Your task to perform on an android device: Open Chrome and go to settings Image 0: 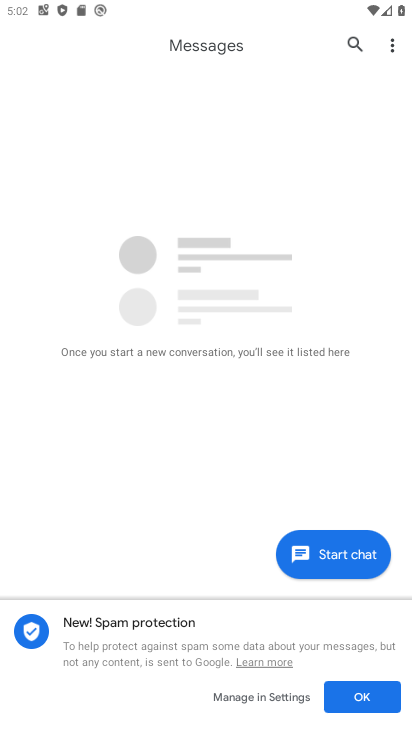
Step 0: press home button
Your task to perform on an android device: Open Chrome and go to settings Image 1: 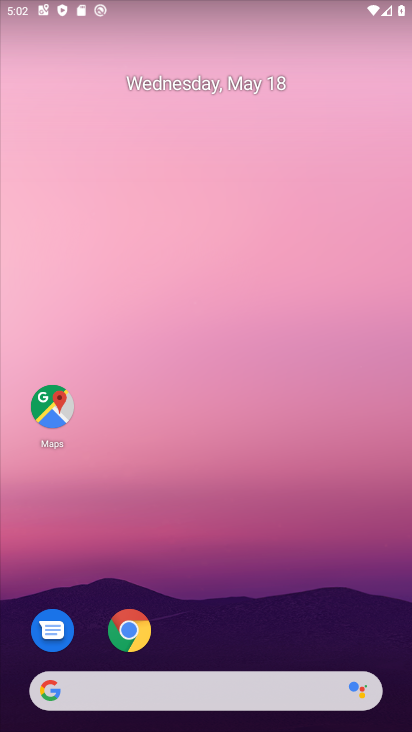
Step 1: drag from (172, 666) to (173, 262)
Your task to perform on an android device: Open Chrome and go to settings Image 2: 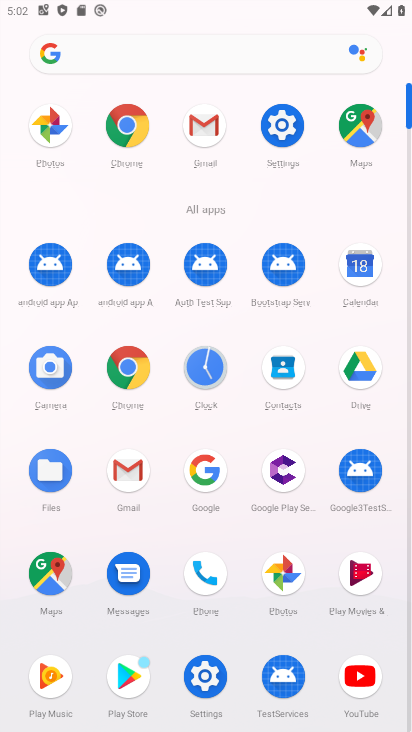
Step 2: click (141, 124)
Your task to perform on an android device: Open Chrome and go to settings Image 3: 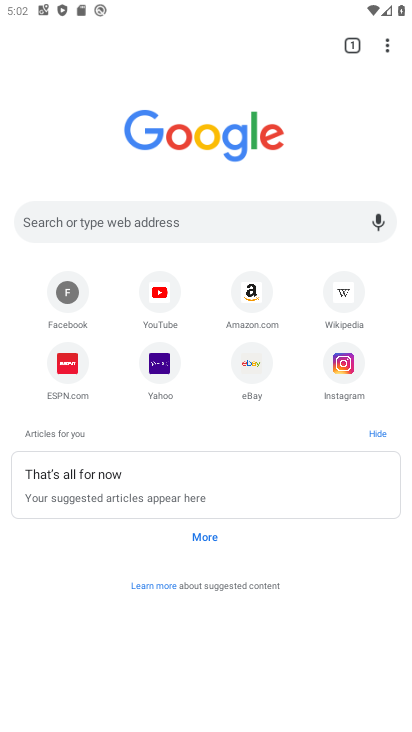
Step 3: click (394, 53)
Your task to perform on an android device: Open Chrome and go to settings Image 4: 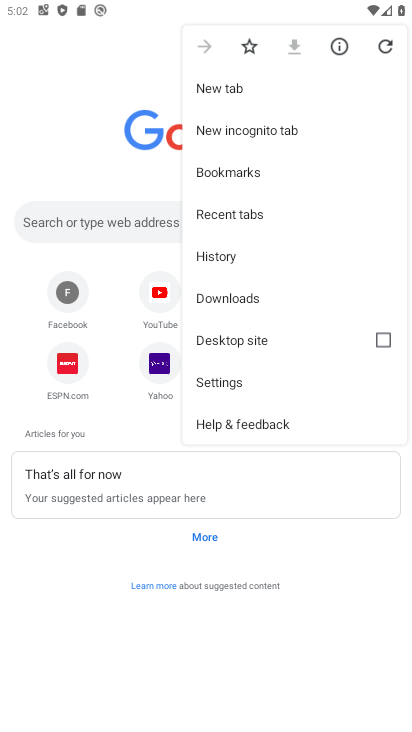
Step 4: click (248, 378)
Your task to perform on an android device: Open Chrome and go to settings Image 5: 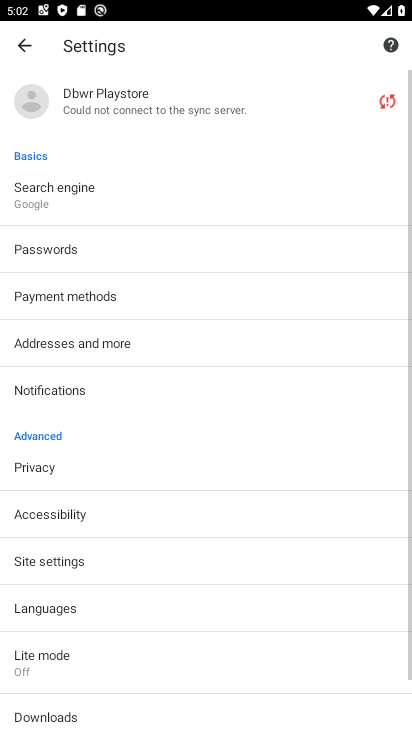
Step 5: task complete